Your task to perform on an android device: See recent photos Image 0: 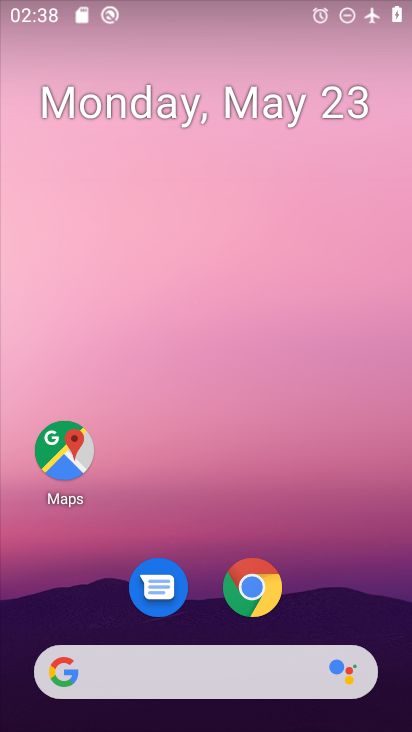
Step 0: drag from (392, 594) to (343, 129)
Your task to perform on an android device: See recent photos Image 1: 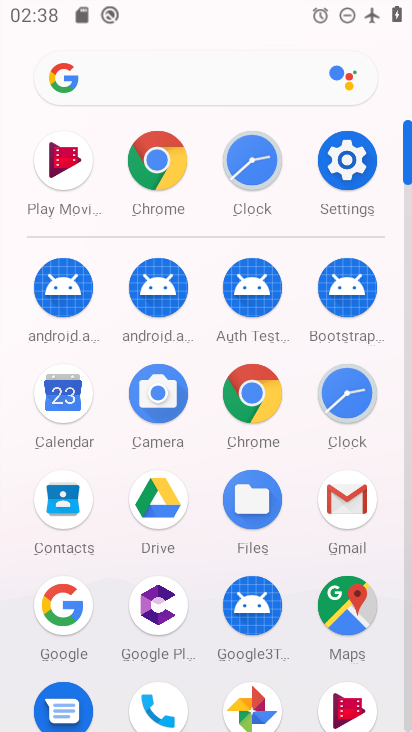
Step 1: click (256, 695)
Your task to perform on an android device: See recent photos Image 2: 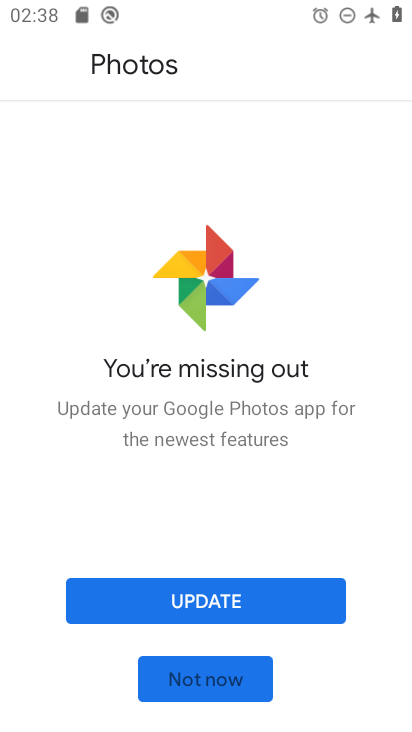
Step 2: click (320, 612)
Your task to perform on an android device: See recent photos Image 3: 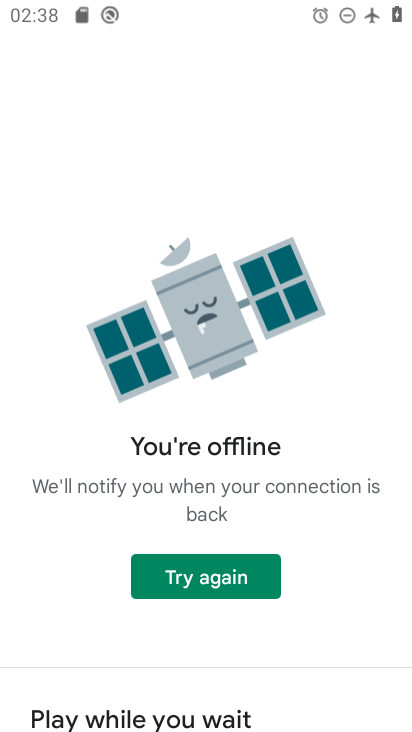
Step 3: task complete